Your task to perform on an android device: Go to network settings Image 0: 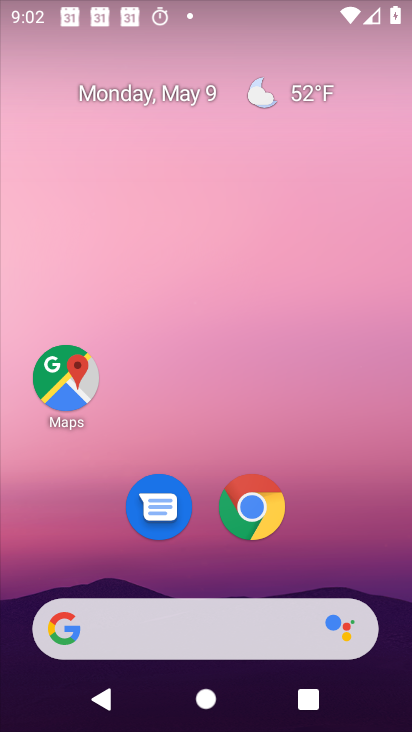
Step 0: drag from (343, 563) to (242, 98)
Your task to perform on an android device: Go to network settings Image 1: 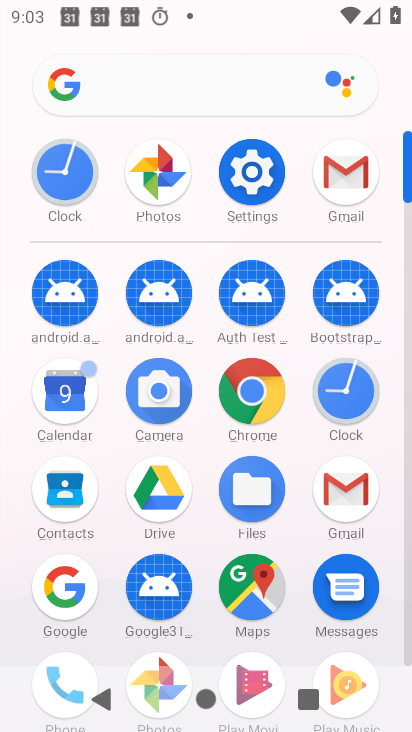
Step 1: click (252, 169)
Your task to perform on an android device: Go to network settings Image 2: 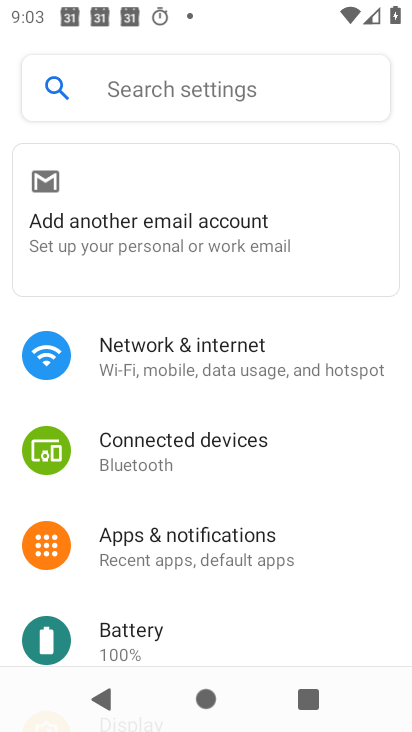
Step 2: click (227, 338)
Your task to perform on an android device: Go to network settings Image 3: 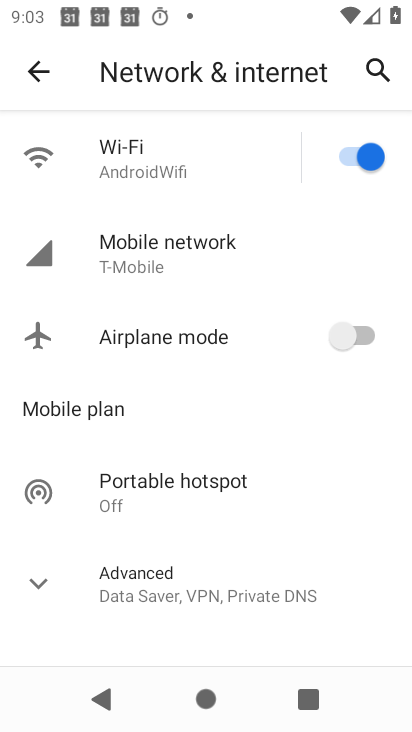
Step 3: click (215, 234)
Your task to perform on an android device: Go to network settings Image 4: 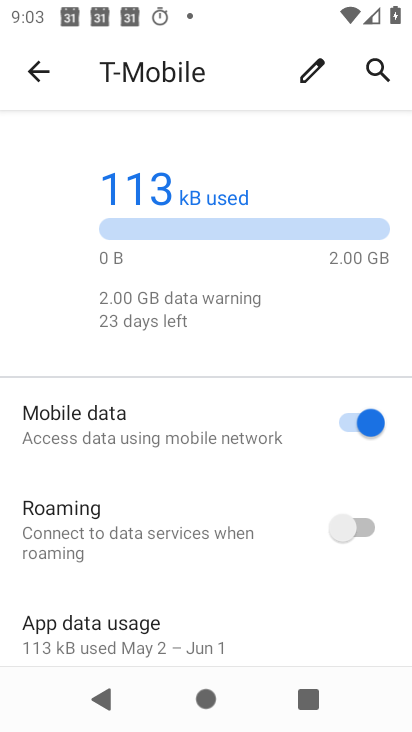
Step 4: task complete